Your task to perform on an android device: Open Maps and search for coffee Image 0: 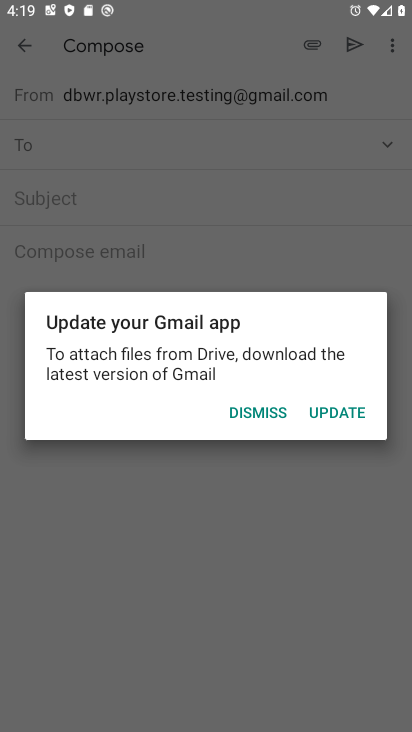
Step 0: press home button
Your task to perform on an android device: Open Maps and search for coffee Image 1: 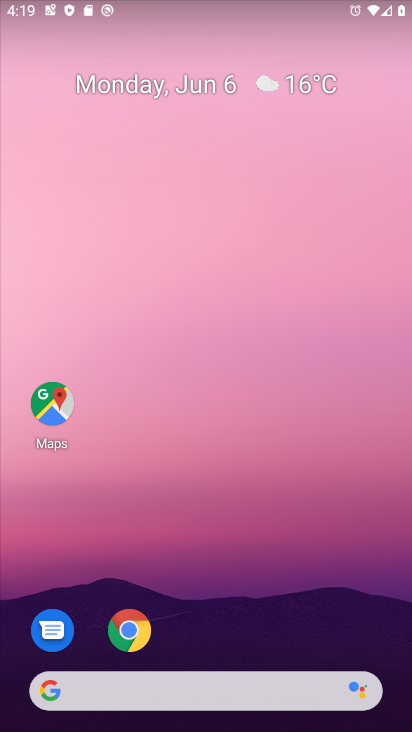
Step 1: click (39, 408)
Your task to perform on an android device: Open Maps and search for coffee Image 2: 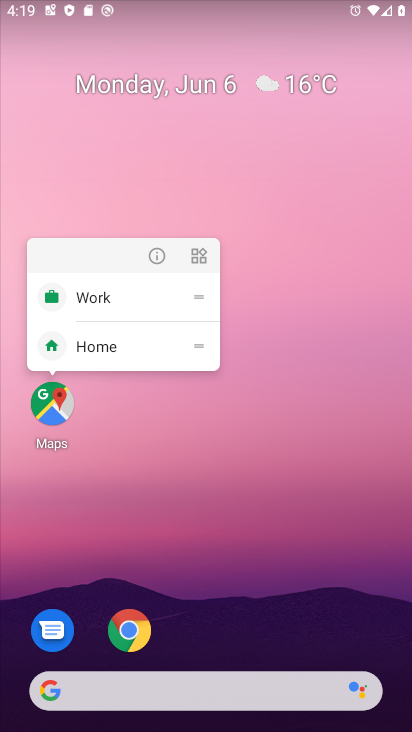
Step 2: click (49, 418)
Your task to perform on an android device: Open Maps and search for coffee Image 3: 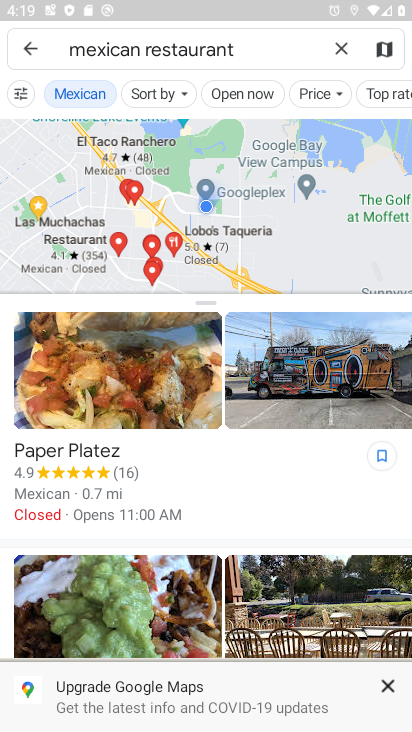
Step 3: click (339, 42)
Your task to perform on an android device: Open Maps and search for coffee Image 4: 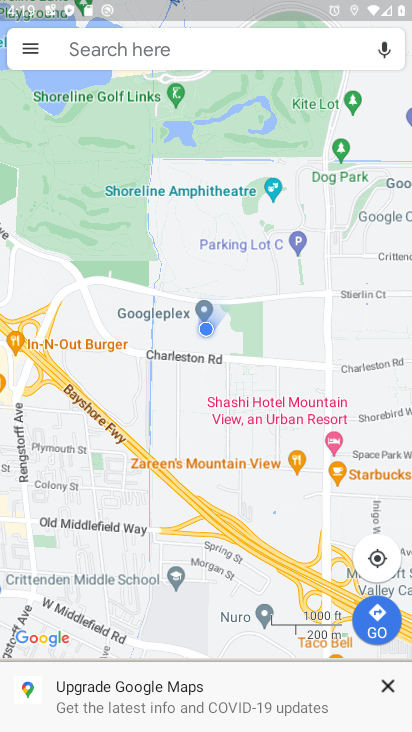
Step 4: click (242, 52)
Your task to perform on an android device: Open Maps and search for coffee Image 5: 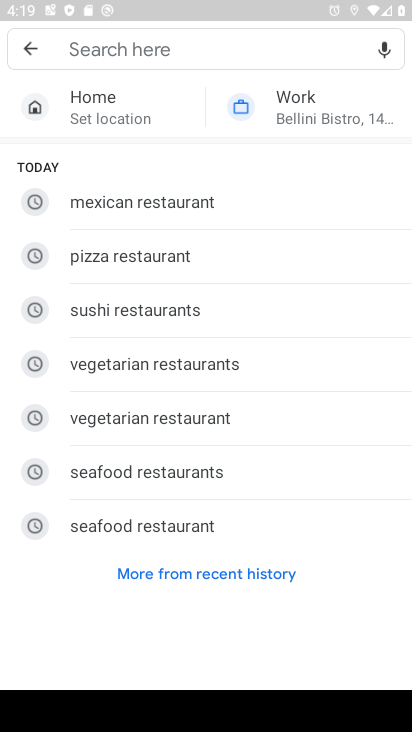
Step 5: type "coffee"
Your task to perform on an android device: Open Maps and search for coffee Image 6: 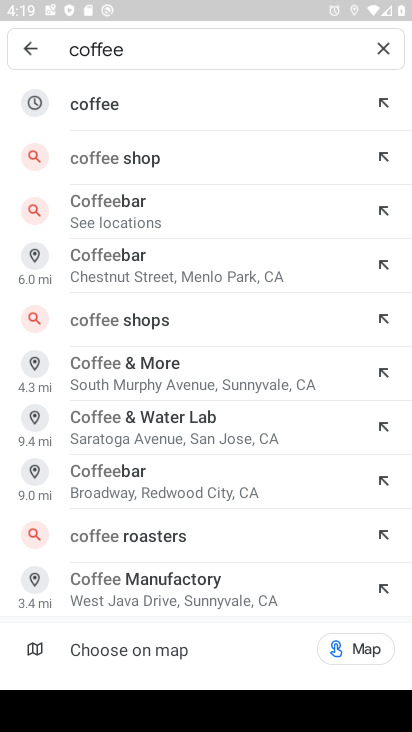
Step 6: click (197, 112)
Your task to perform on an android device: Open Maps and search for coffee Image 7: 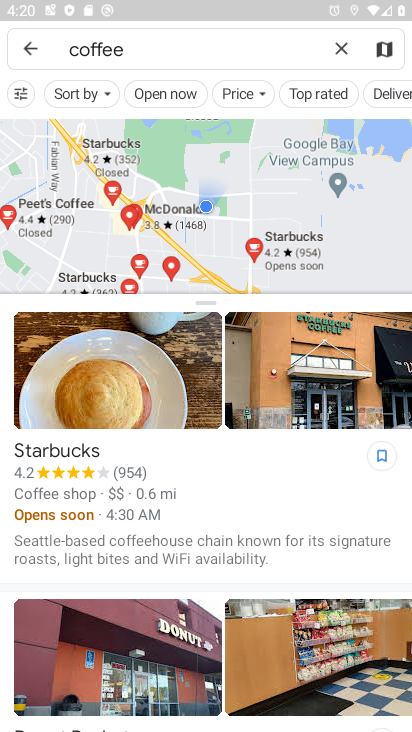
Step 7: task complete